Your task to perform on an android device: Go to Reddit.com Image 0: 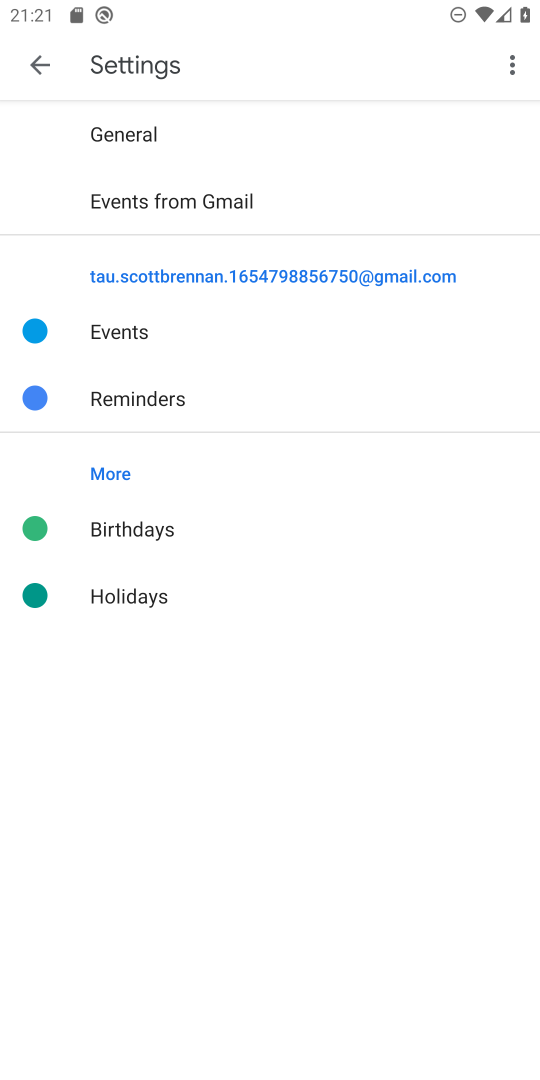
Step 0: press home button
Your task to perform on an android device: Go to Reddit.com Image 1: 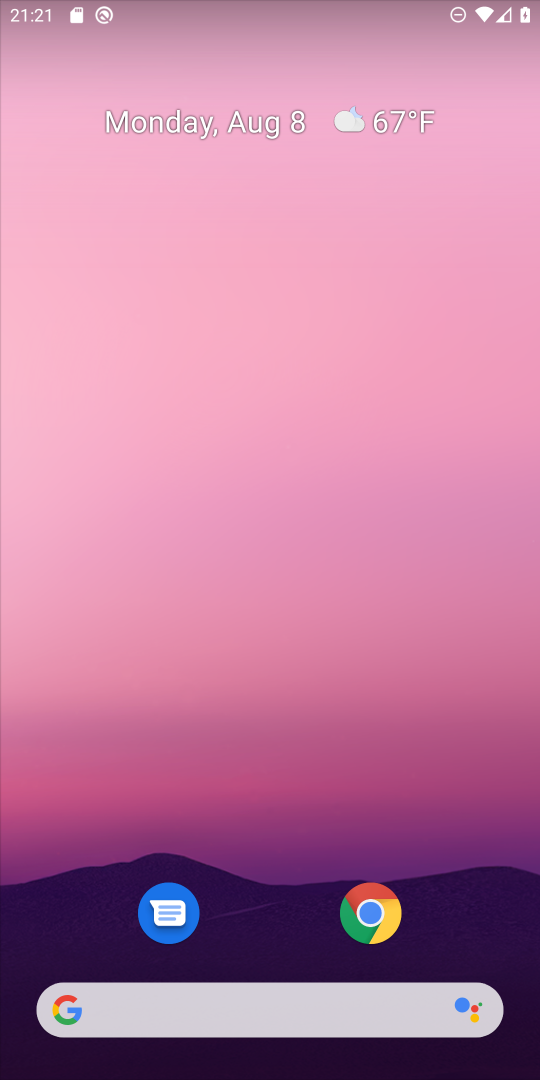
Step 1: click (370, 911)
Your task to perform on an android device: Go to Reddit.com Image 2: 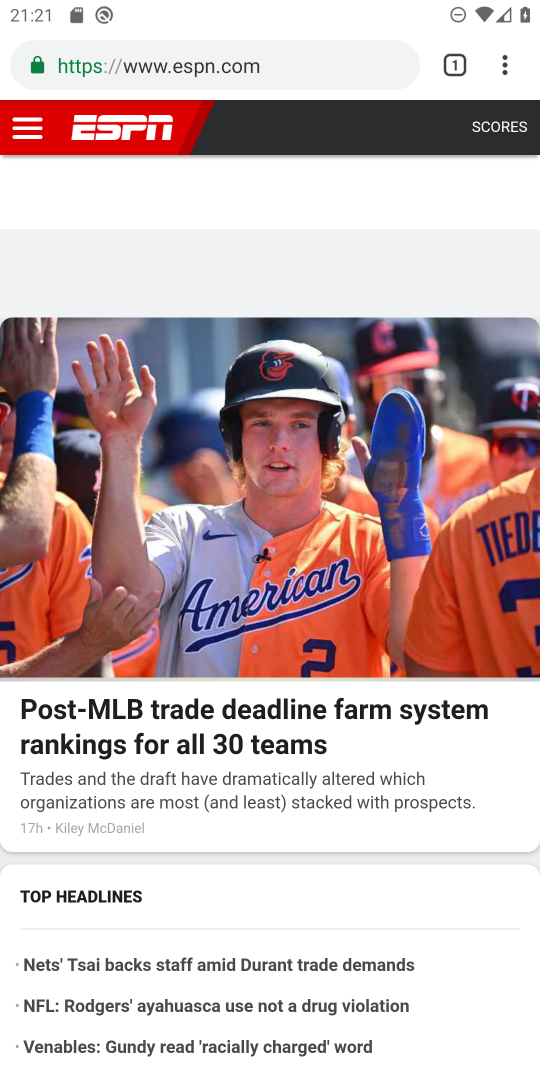
Step 2: click (339, 82)
Your task to perform on an android device: Go to Reddit.com Image 3: 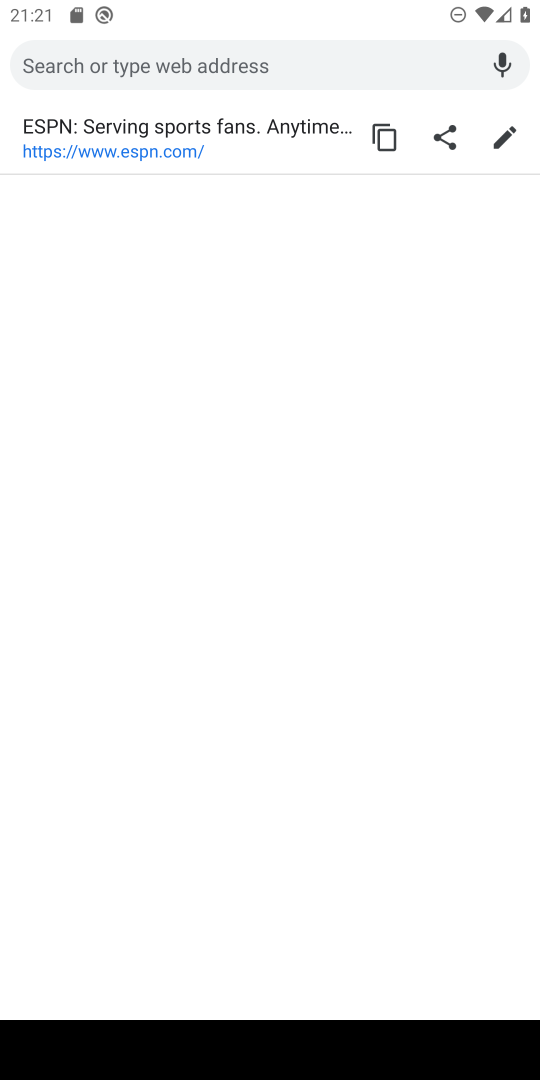
Step 3: click (338, 60)
Your task to perform on an android device: Go to Reddit.com Image 4: 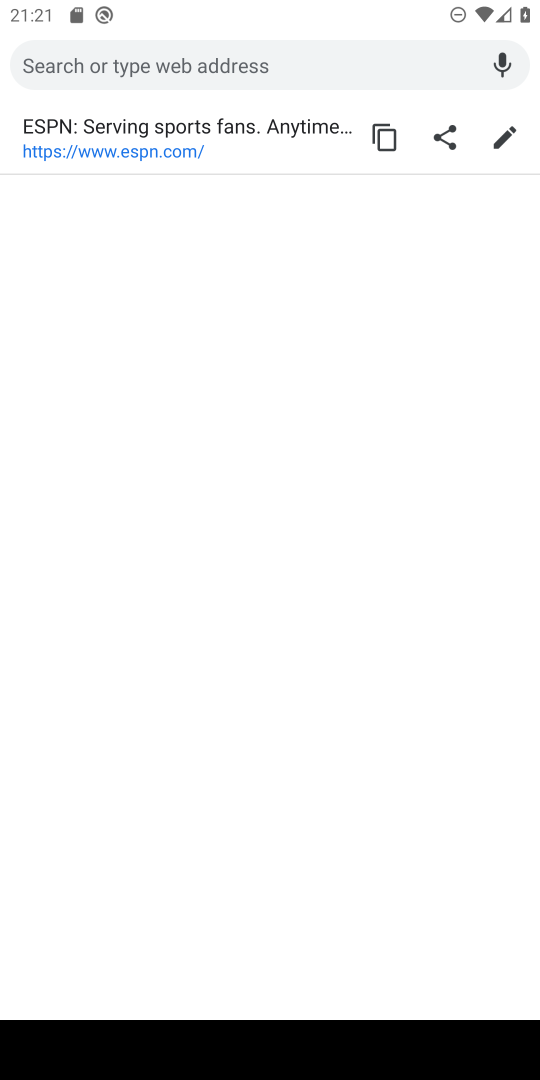
Step 4: type "Reddit.com"
Your task to perform on an android device: Go to Reddit.com Image 5: 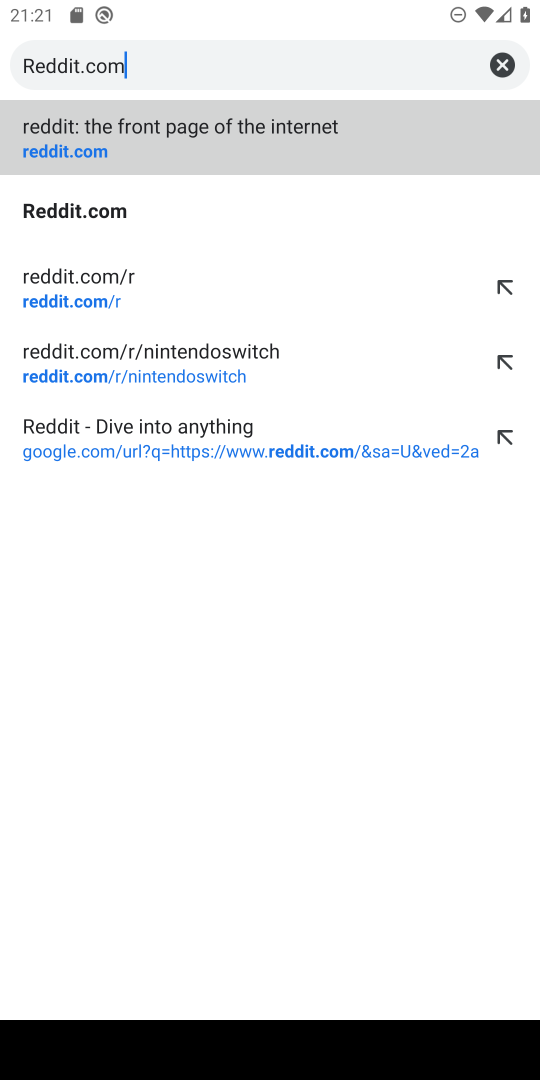
Step 5: click (81, 281)
Your task to perform on an android device: Go to Reddit.com Image 6: 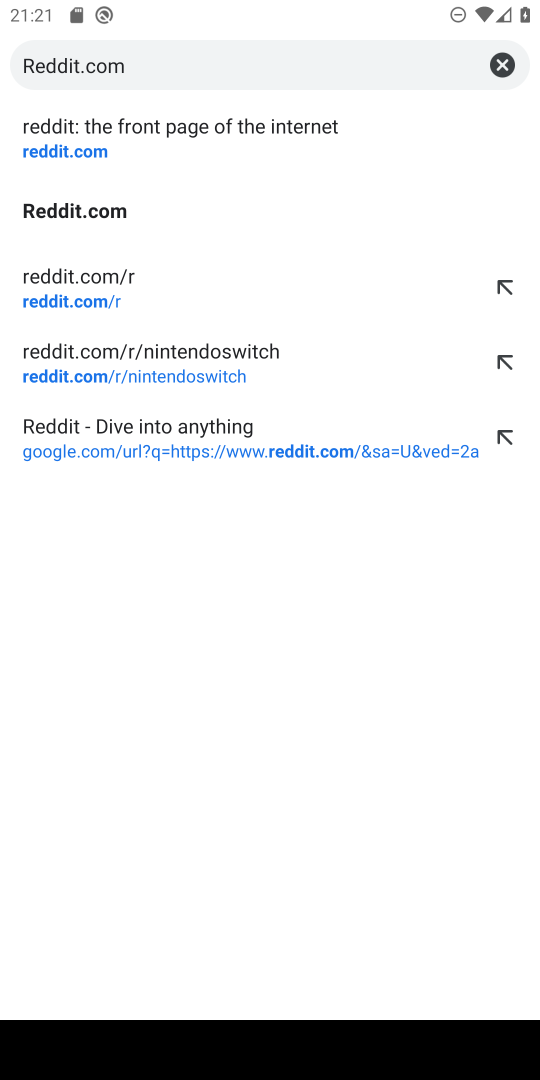
Step 6: click (93, 218)
Your task to perform on an android device: Go to Reddit.com Image 7: 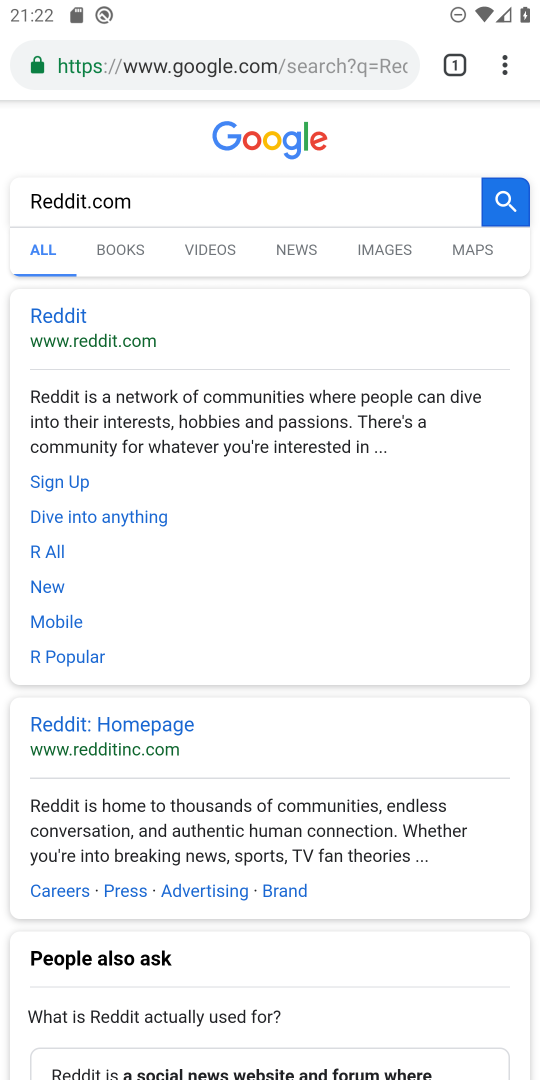
Step 7: click (146, 338)
Your task to perform on an android device: Go to Reddit.com Image 8: 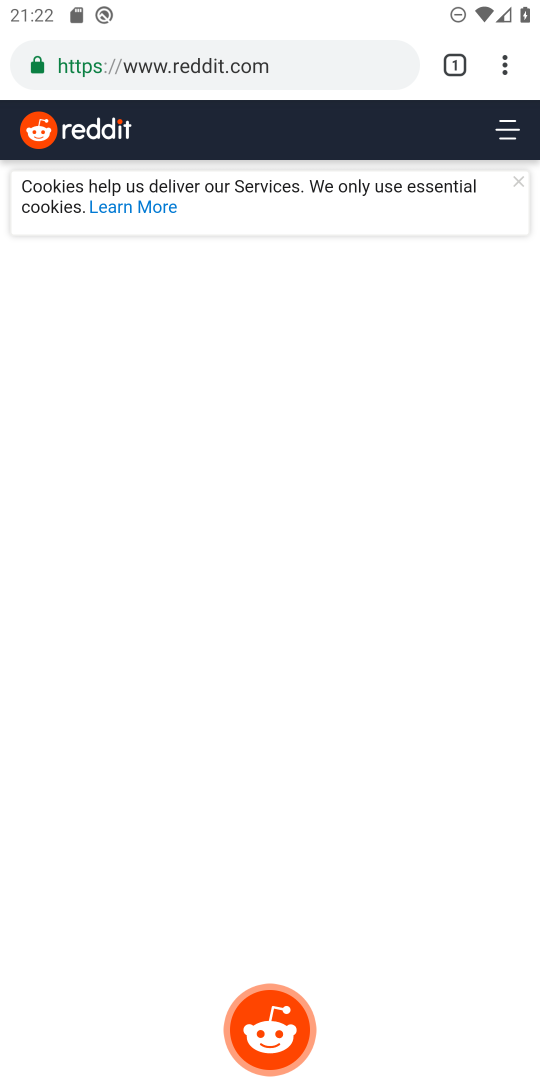
Step 8: task complete